Your task to perform on an android device: Turn off the flashlight Image 0: 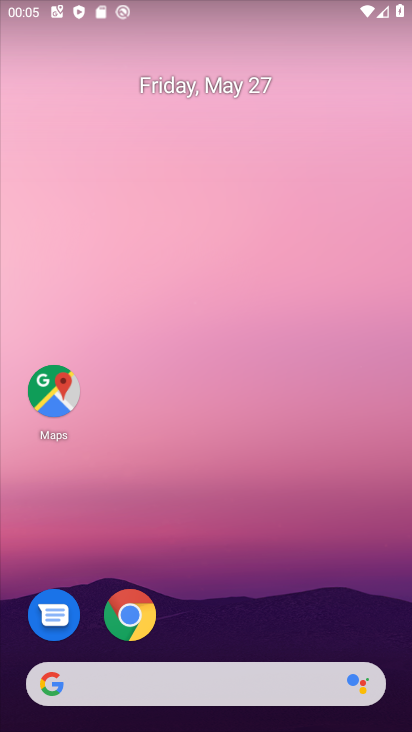
Step 0: press home button
Your task to perform on an android device: Turn off the flashlight Image 1: 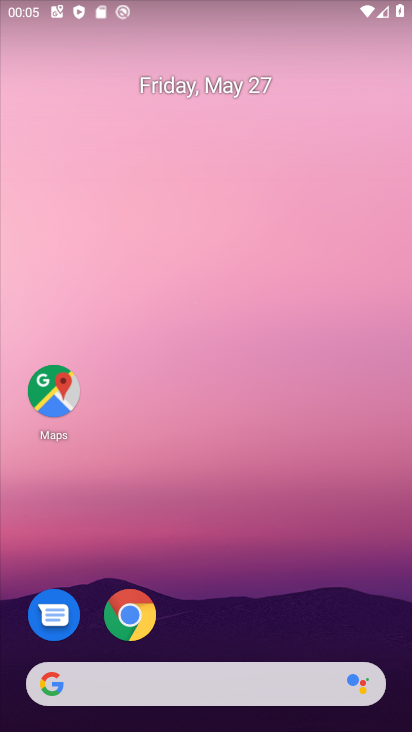
Step 1: task complete